Your task to perform on an android device: turn on bluetooth scan Image 0: 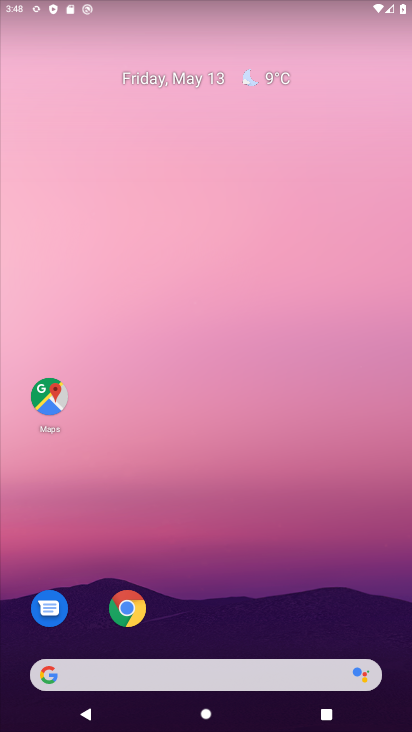
Step 0: click (238, 92)
Your task to perform on an android device: turn on bluetooth scan Image 1: 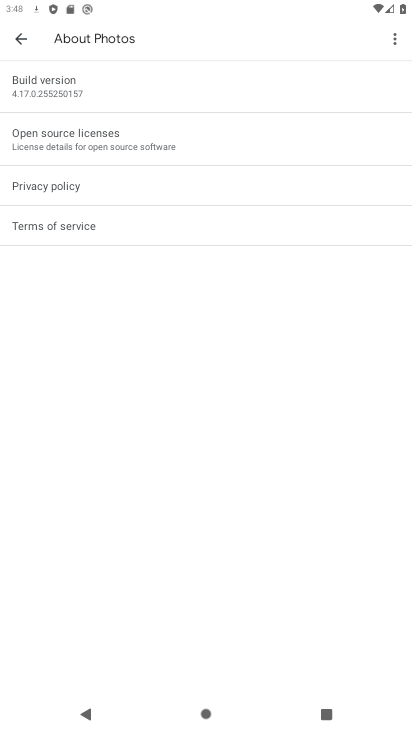
Step 1: press home button
Your task to perform on an android device: turn on bluetooth scan Image 2: 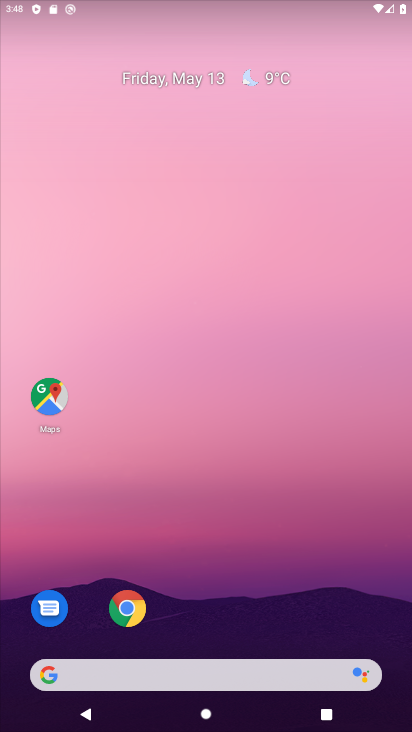
Step 2: drag from (232, 555) to (263, 26)
Your task to perform on an android device: turn on bluetooth scan Image 3: 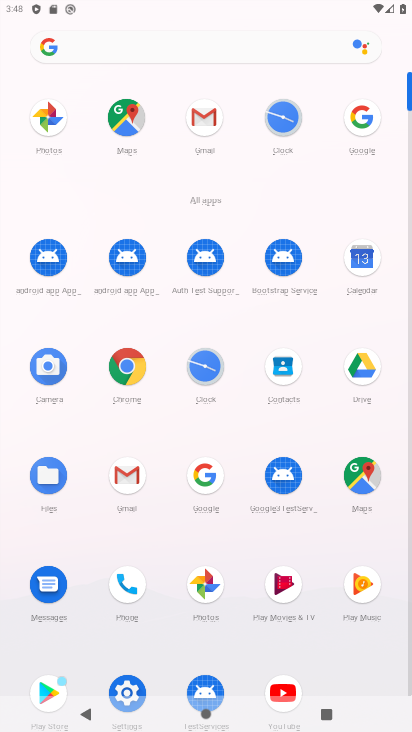
Step 3: click (124, 684)
Your task to perform on an android device: turn on bluetooth scan Image 4: 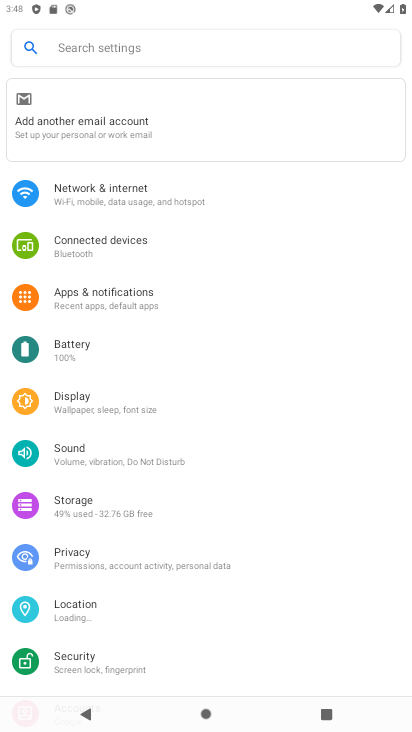
Step 4: click (147, 607)
Your task to perform on an android device: turn on bluetooth scan Image 5: 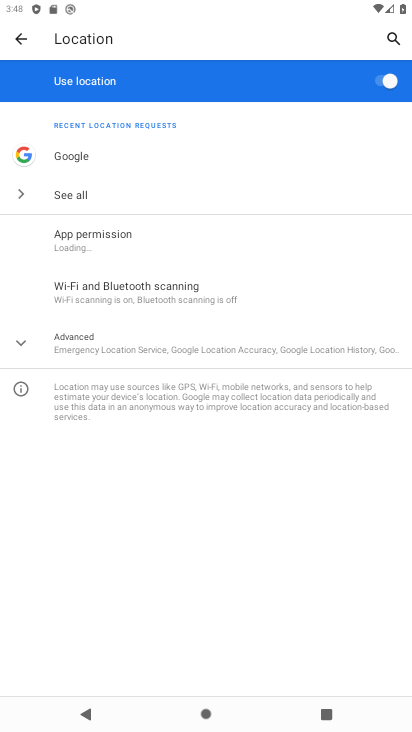
Step 5: click (174, 294)
Your task to perform on an android device: turn on bluetooth scan Image 6: 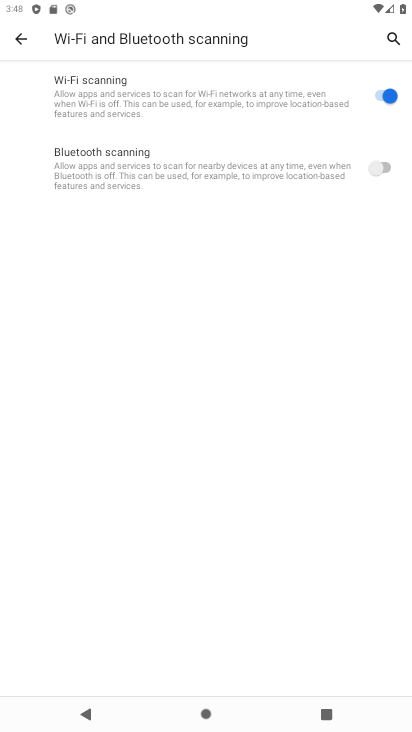
Step 6: click (383, 164)
Your task to perform on an android device: turn on bluetooth scan Image 7: 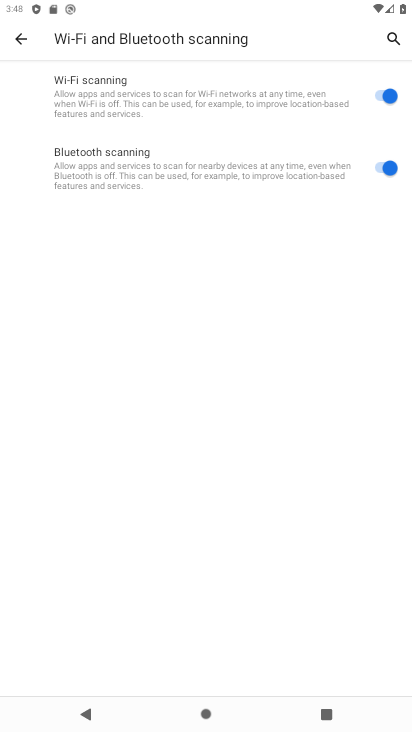
Step 7: task complete